Your task to perform on an android device: Open Chrome and go to the settings page Image 0: 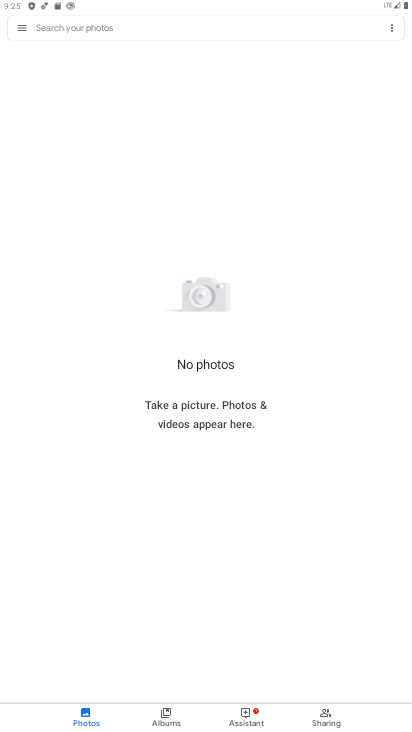
Step 0: drag from (235, 577) to (282, 332)
Your task to perform on an android device: Open Chrome and go to the settings page Image 1: 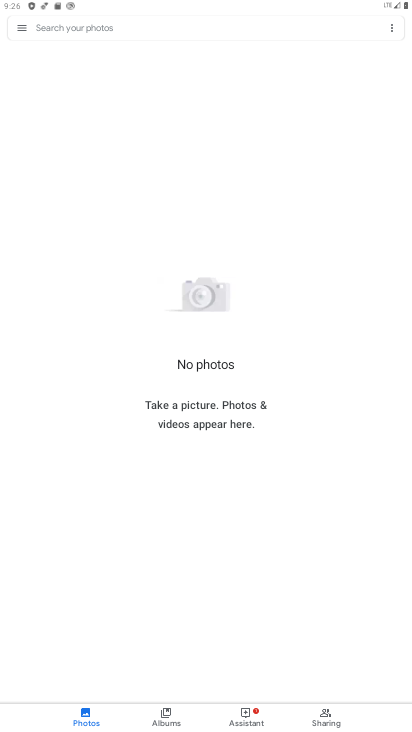
Step 1: drag from (218, 612) to (260, 171)
Your task to perform on an android device: Open Chrome and go to the settings page Image 2: 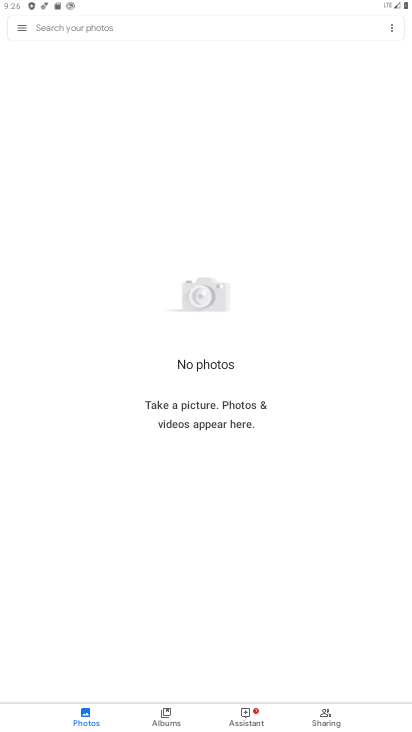
Step 2: drag from (236, 566) to (254, 323)
Your task to perform on an android device: Open Chrome and go to the settings page Image 3: 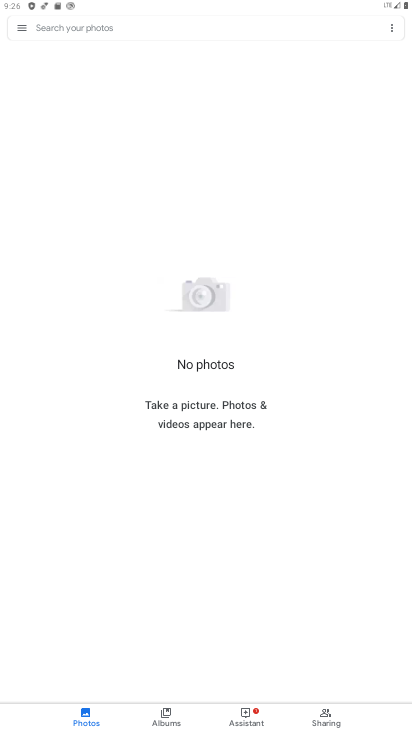
Step 3: press home button
Your task to perform on an android device: Open Chrome and go to the settings page Image 4: 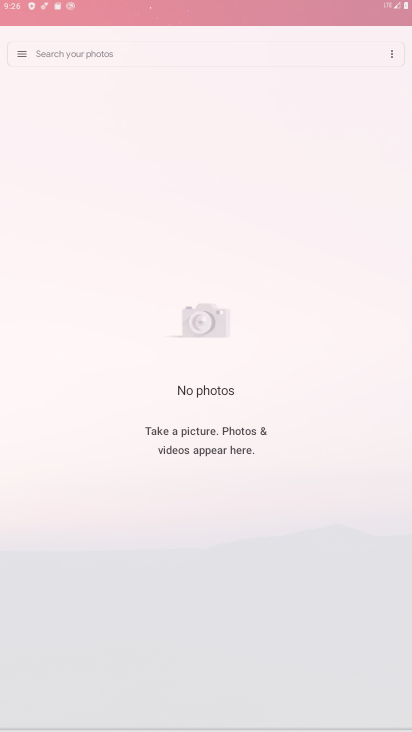
Step 4: drag from (217, 575) to (287, 36)
Your task to perform on an android device: Open Chrome and go to the settings page Image 5: 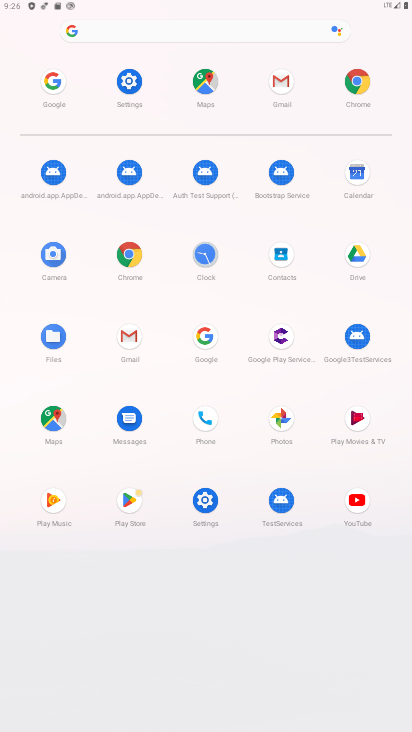
Step 5: click (354, 76)
Your task to perform on an android device: Open Chrome and go to the settings page Image 6: 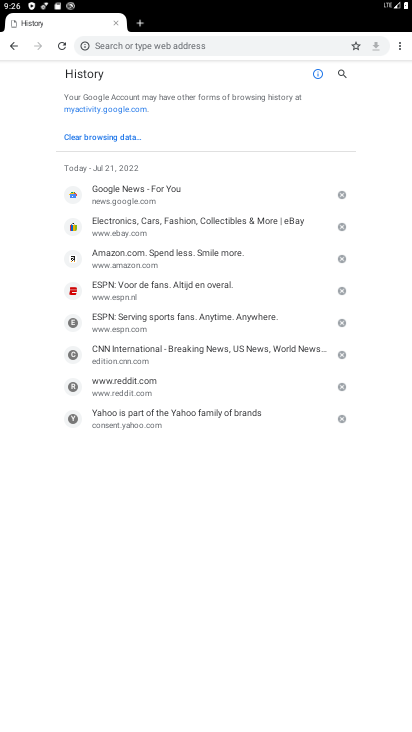
Step 6: task complete